Your task to perform on an android device: Open Chrome and go to the settings page Image 0: 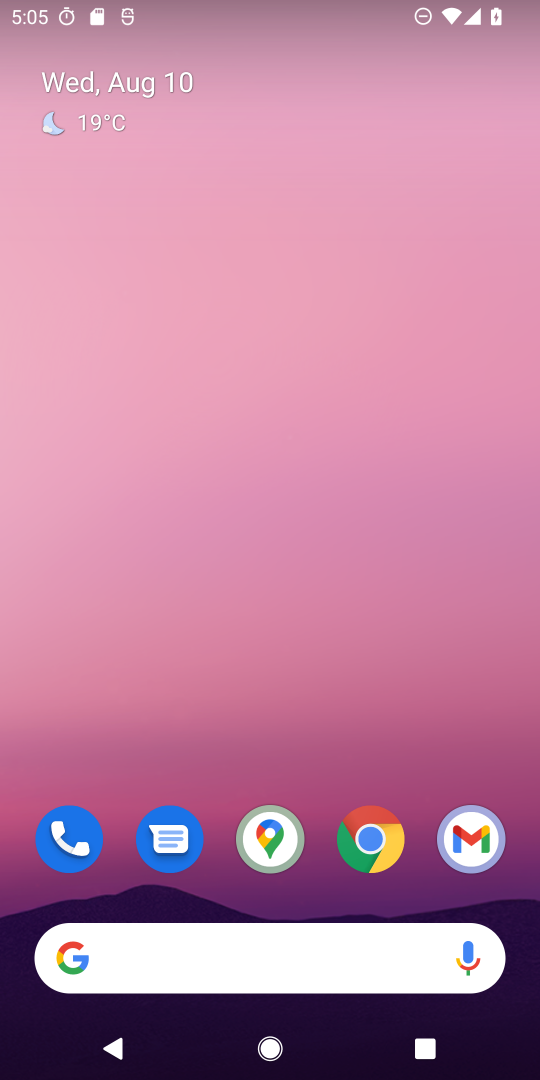
Step 0: drag from (15, 1000) to (50, 940)
Your task to perform on an android device: Open Chrome and go to the settings page Image 1: 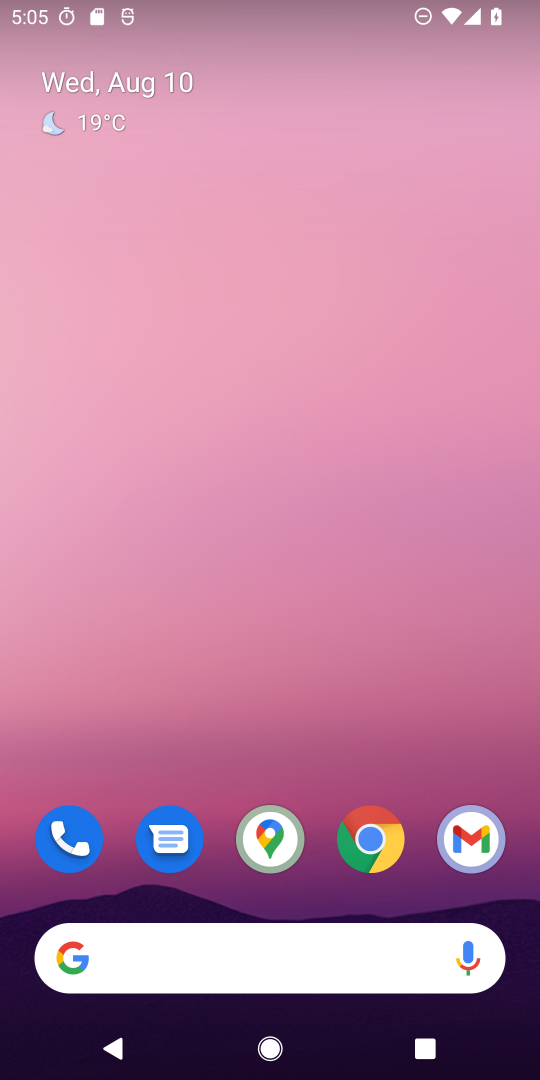
Step 1: click (361, 844)
Your task to perform on an android device: Open Chrome and go to the settings page Image 2: 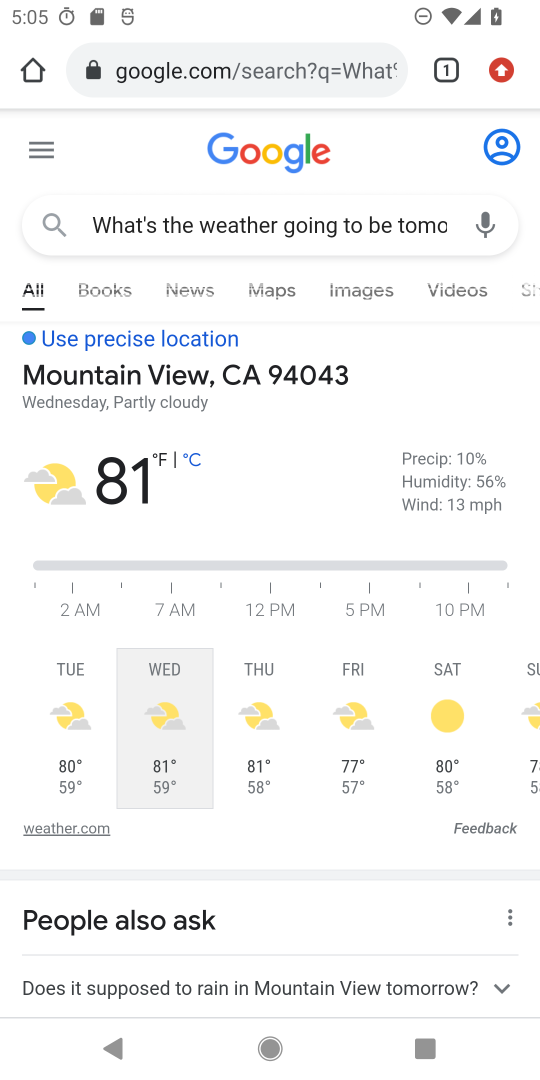
Step 2: click (500, 74)
Your task to perform on an android device: Open Chrome and go to the settings page Image 3: 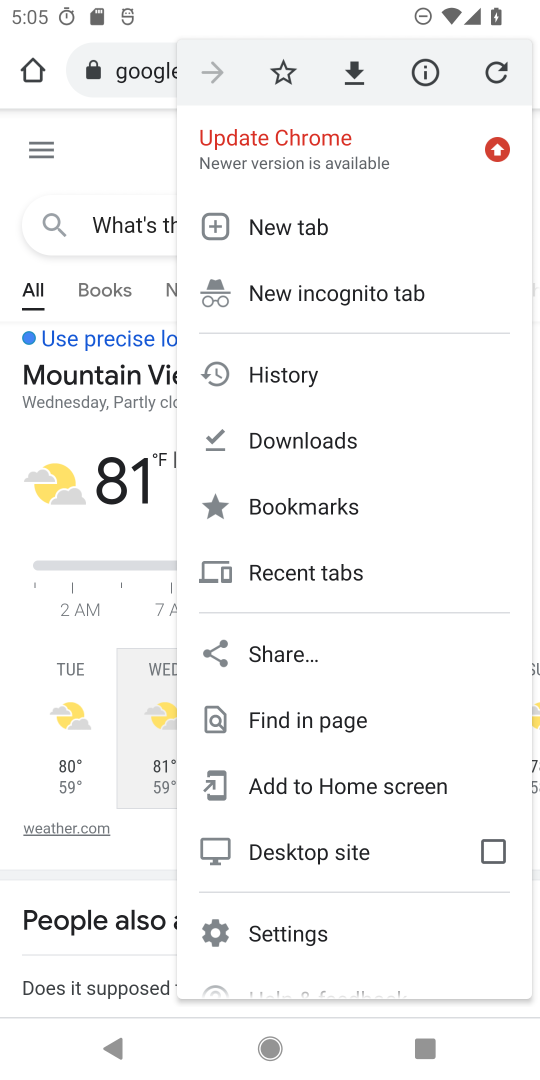
Step 3: click (281, 943)
Your task to perform on an android device: Open Chrome and go to the settings page Image 4: 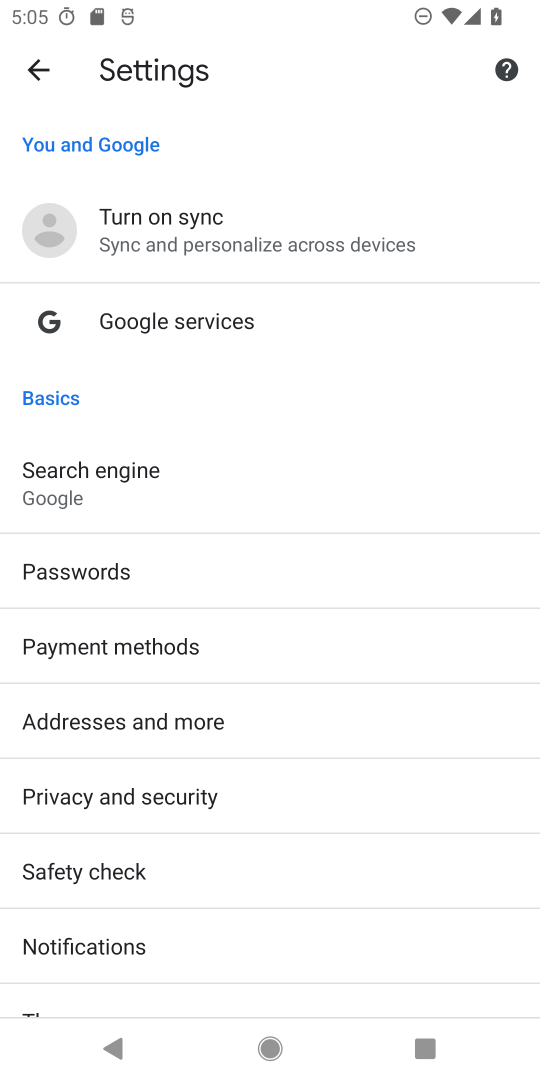
Step 4: task complete